Your task to perform on an android device: turn off smart reply in the gmail app Image 0: 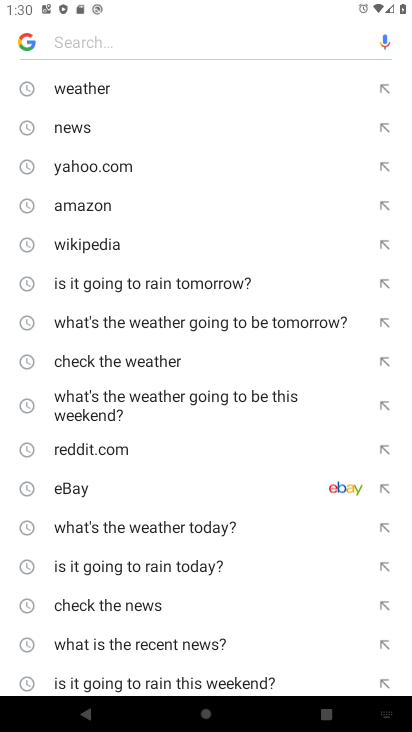
Step 0: press home button
Your task to perform on an android device: turn off smart reply in the gmail app Image 1: 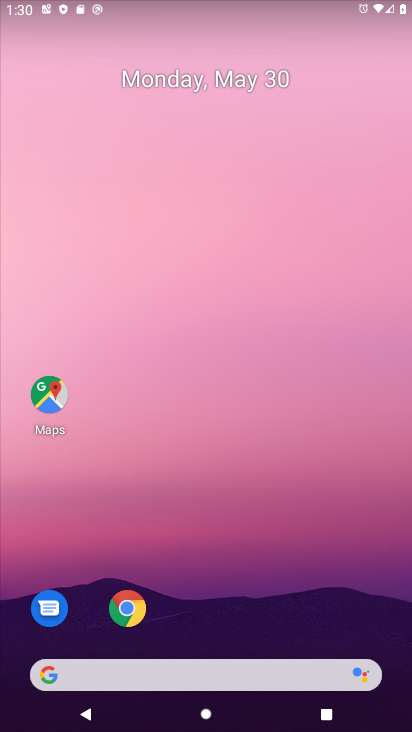
Step 1: drag from (160, 590) to (136, 117)
Your task to perform on an android device: turn off smart reply in the gmail app Image 2: 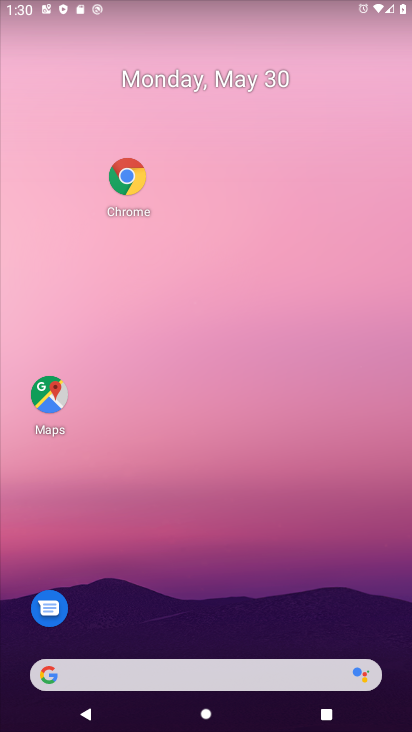
Step 2: drag from (342, 579) to (206, 132)
Your task to perform on an android device: turn off smart reply in the gmail app Image 3: 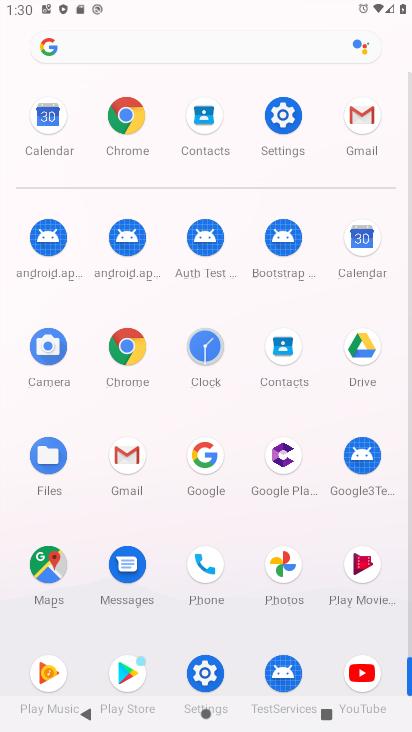
Step 3: click (362, 122)
Your task to perform on an android device: turn off smart reply in the gmail app Image 4: 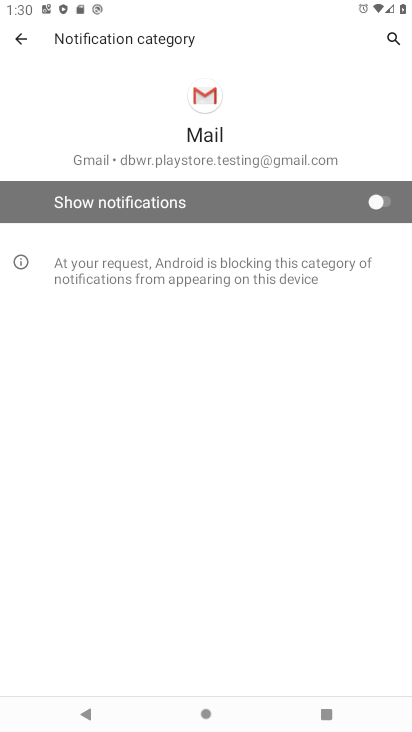
Step 4: click (26, 32)
Your task to perform on an android device: turn off smart reply in the gmail app Image 5: 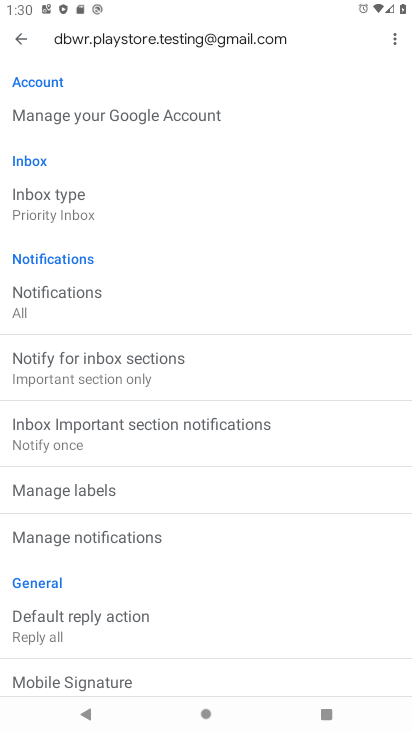
Step 5: drag from (118, 625) to (106, 290)
Your task to perform on an android device: turn off smart reply in the gmail app Image 6: 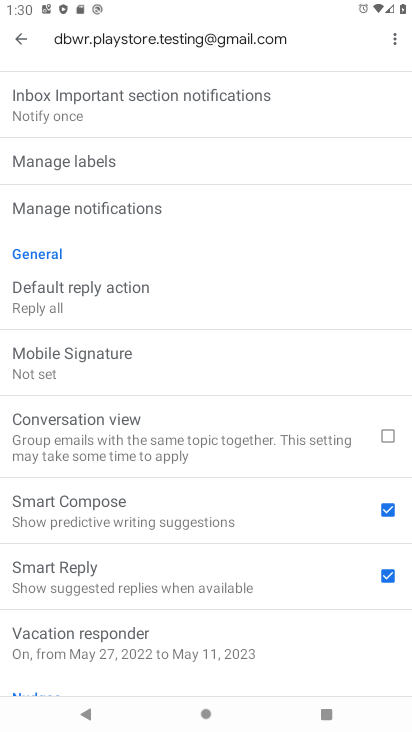
Step 6: drag from (139, 623) to (133, 339)
Your task to perform on an android device: turn off smart reply in the gmail app Image 7: 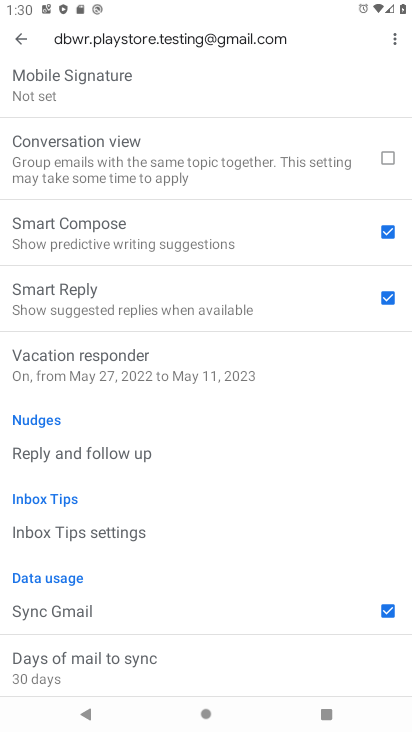
Step 7: click (382, 298)
Your task to perform on an android device: turn off smart reply in the gmail app Image 8: 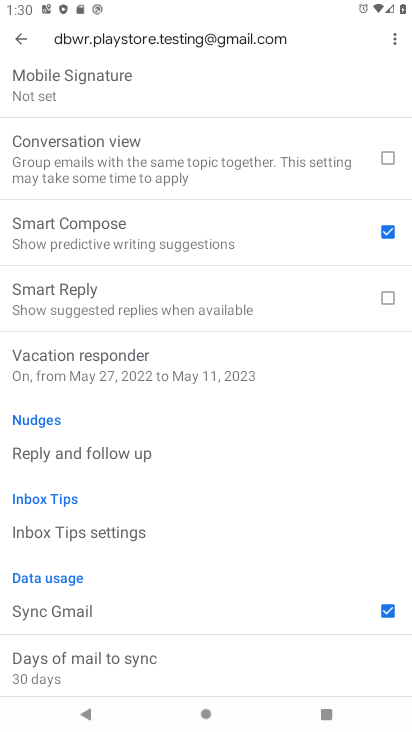
Step 8: task complete